Your task to perform on an android device: Open Google Maps and go to "Timeline" Image 0: 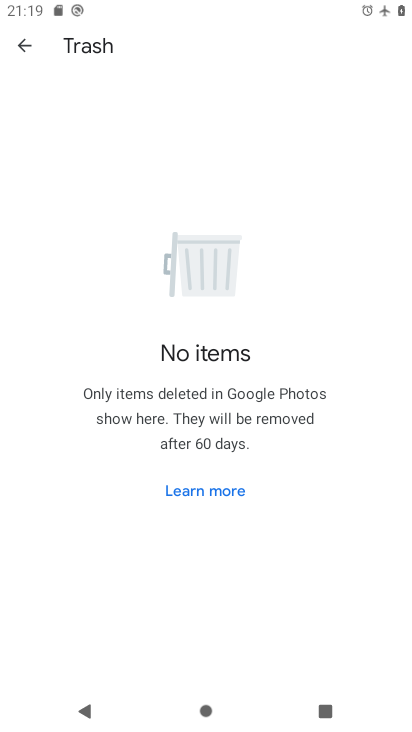
Step 0: press home button
Your task to perform on an android device: Open Google Maps and go to "Timeline" Image 1: 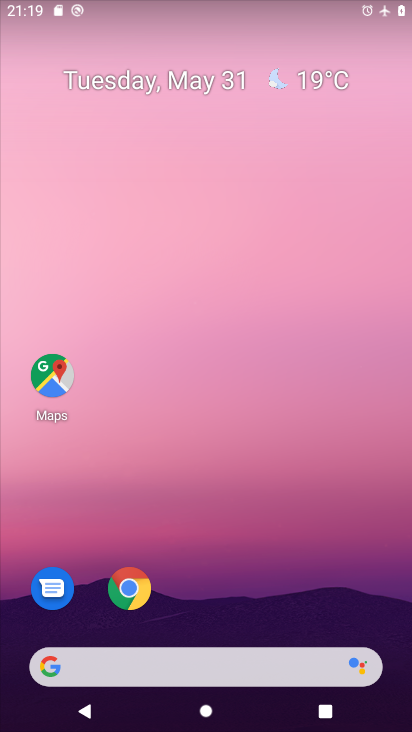
Step 1: click (56, 383)
Your task to perform on an android device: Open Google Maps and go to "Timeline" Image 2: 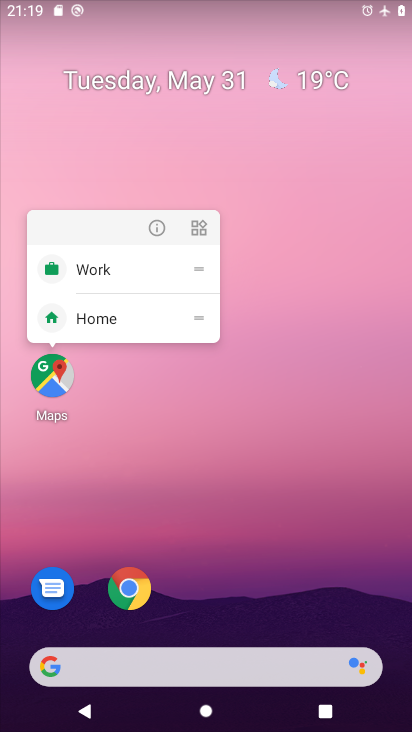
Step 2: click (43, 389)
Your task to perform on an android device: Open Google Maps and go to "Timeline" Image 3: 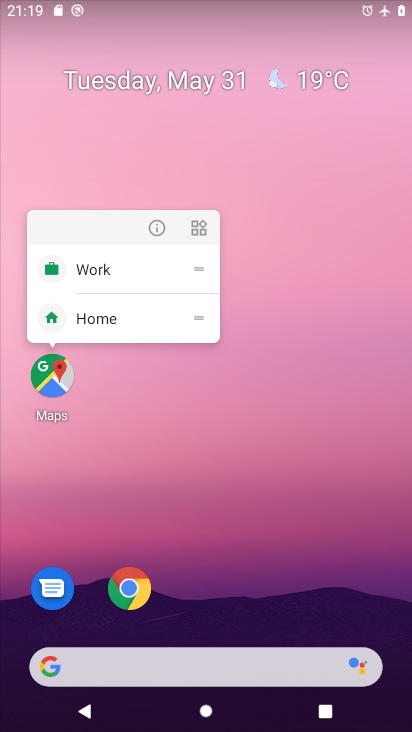
Step 3: click (49, 381)
Your task to perform on an android device: Open Google Maps and go to "Timeline" Image 4: 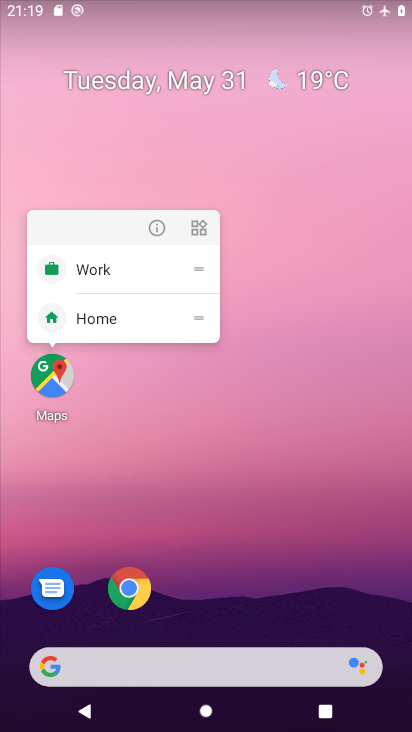
Step 4: click (49, 380)
Your task to perform on an android device: Open Google Maps and go to "Timeline" Image 5: 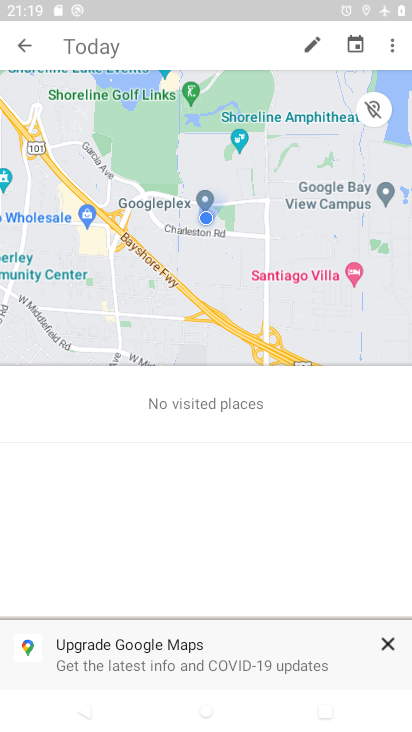
Step 5: task complete